Your task to perform on an android device: Open privacy settings Image 0: 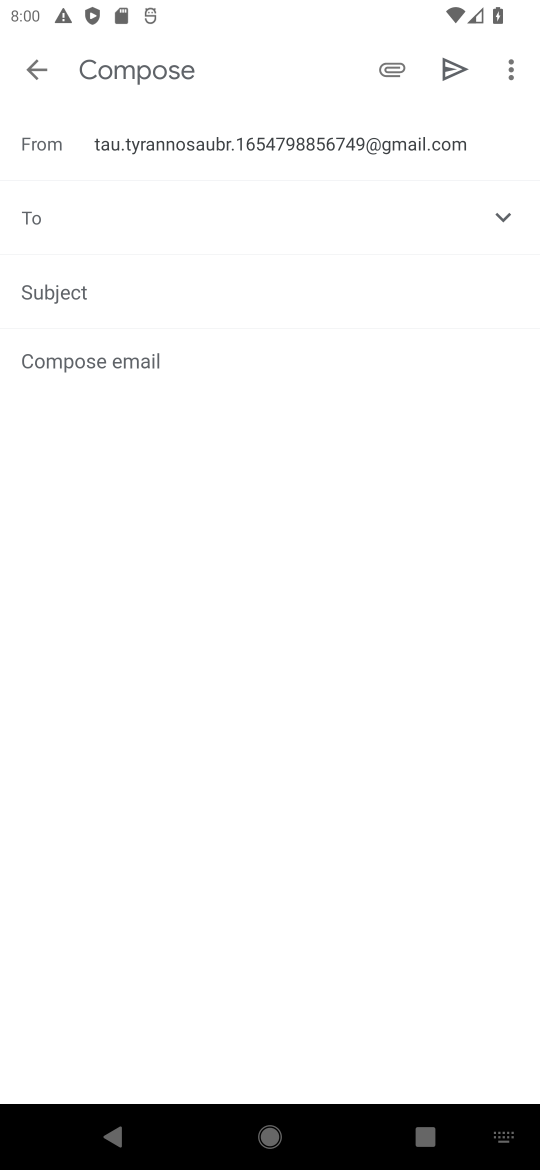
Step 0: drag from (220, 810) to (301, 1157)
Your task to perform on an android device: Open privacy settings Image 1: 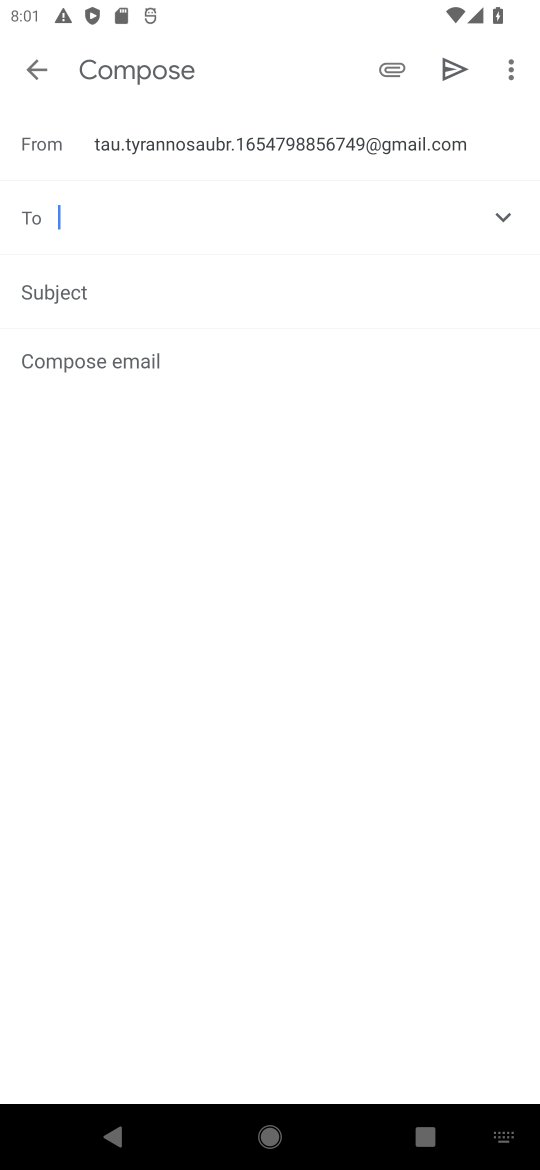
Step 1: drag from (371, 1123) to (231, 1154)
Your task to perform on an android device: Open privacy settings Image 2: 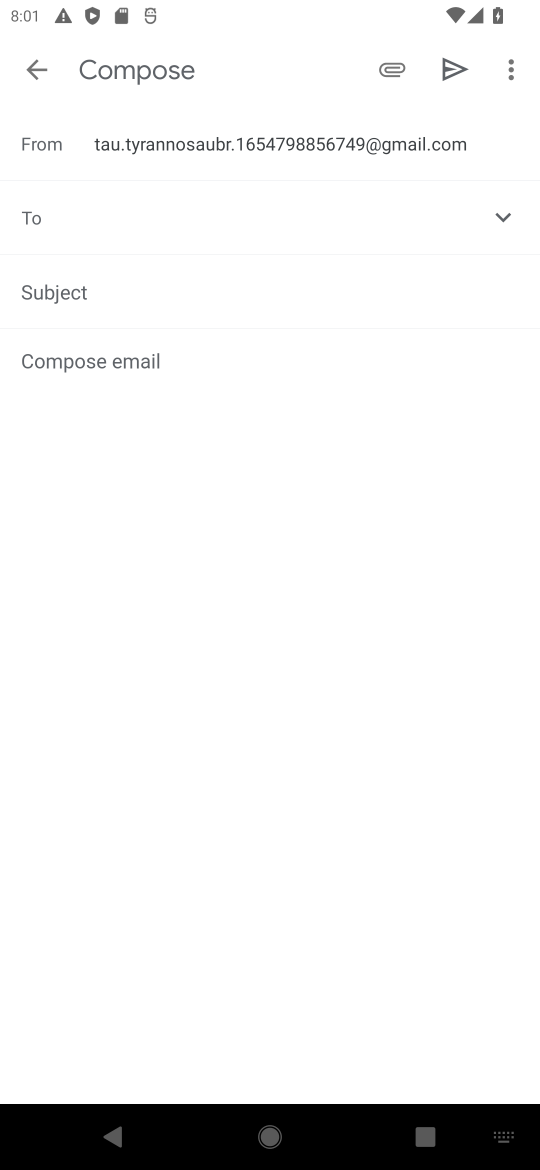
Step 2: drag from (197, 16) to (332, 950)
Your task to perform on an android device: Open privacy settings Image 3: 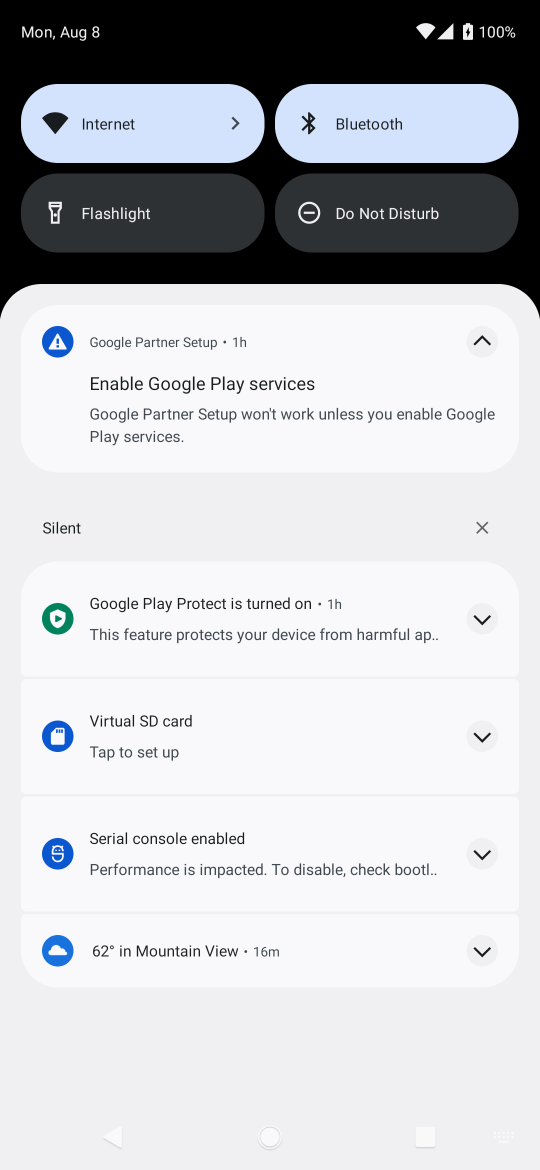
Step 3: drag from (230, 46) to (148, 1141)
Your task to perform on an android device: Open privacy settings Image 4: 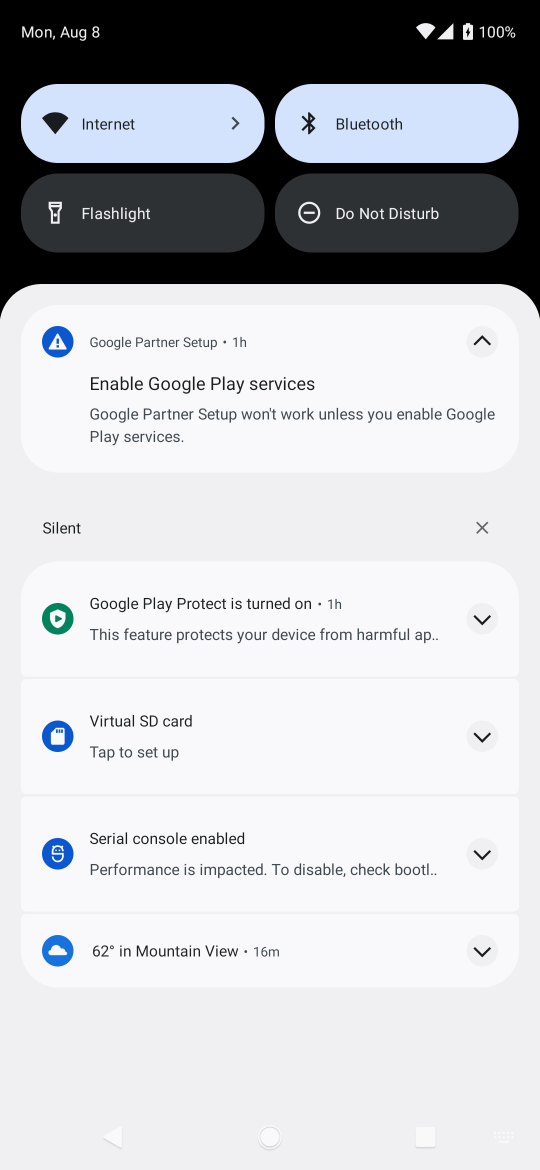
Step 4: drag from (290, 85) to (496, 1085)
Your task to perform on an android device: Open privacy settings Image 5: 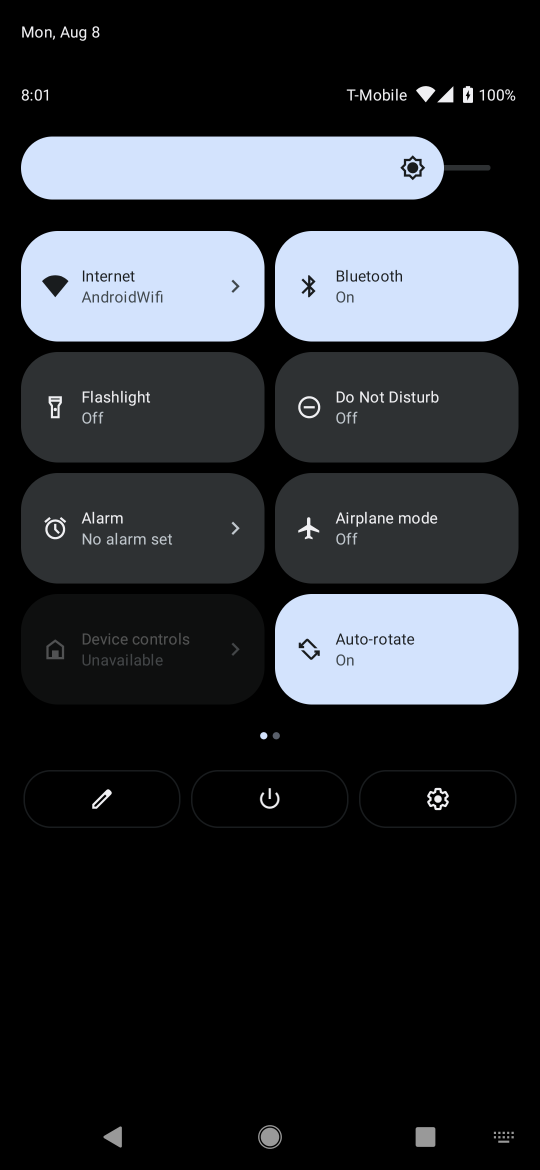
Step 5: click (439, 796)
Your task to perform on an android device: Open privacy settings Image 6: 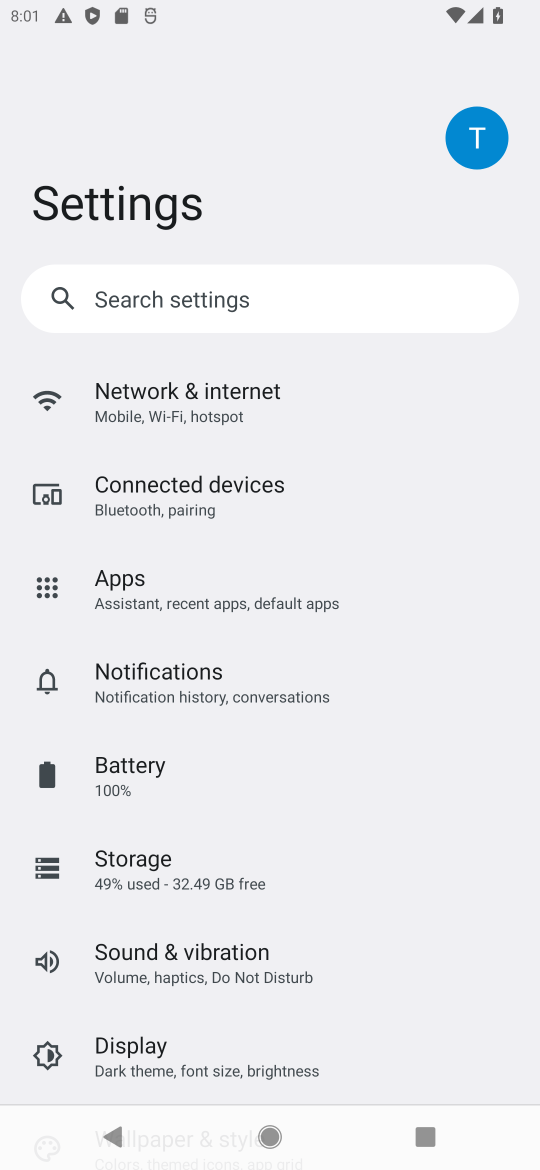
Step 6: task complete